Your task to perform on an android device: Open Android settings Image 0: 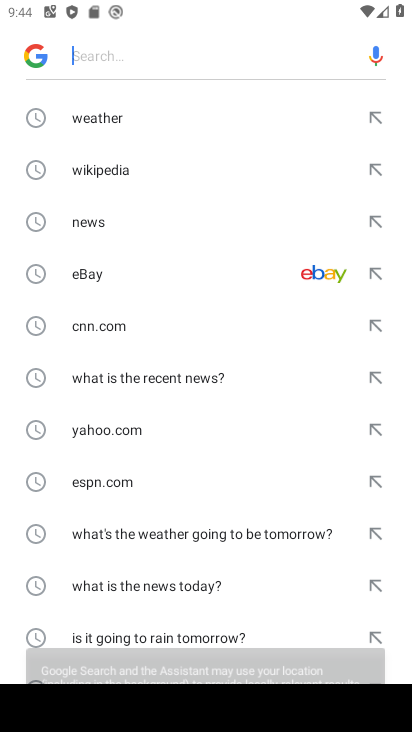
Step 0: press home button
Your task to perform on an android device: Open Android settings Image 1: 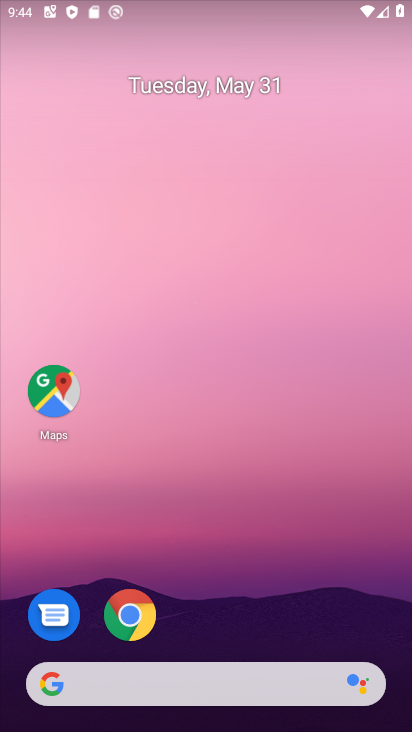
Step 1: drag from (299, 542) to (364, 83)
Your task to perform on an android device: Open Android settings Image 2: 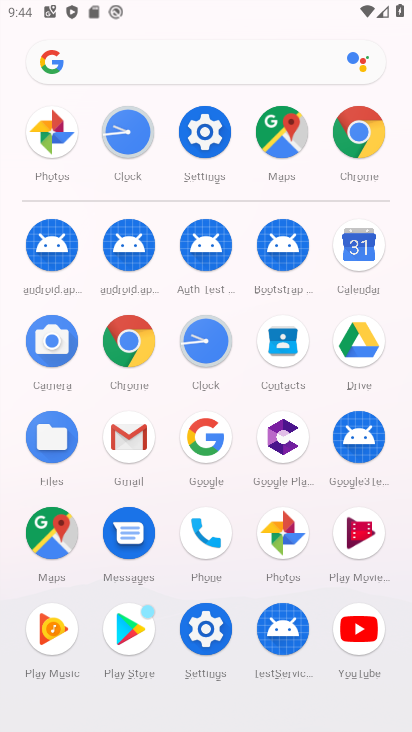
Step 2: click (220, 125)
Your task to perform on an android device: Open Android settings Image 3: 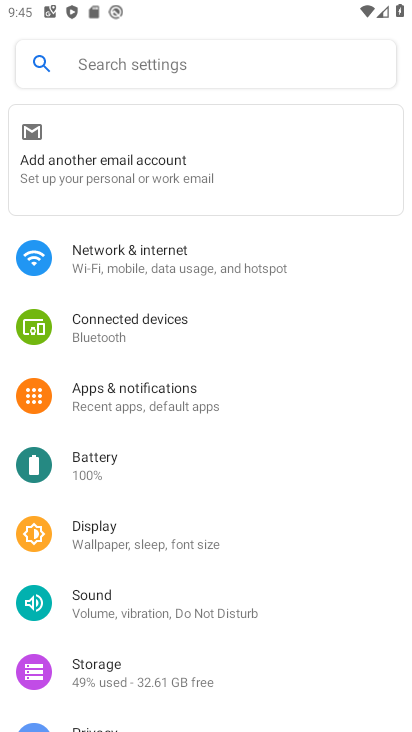
Step 3: task complete